Your task to perform on an android device: star an email in the gmail app Image 0: 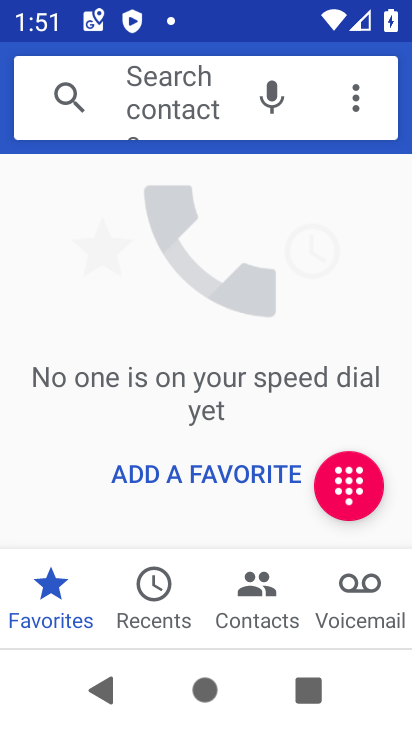
Step 0: press home button
Your task to perform on an android device: star an email in the gmail app Image 1: 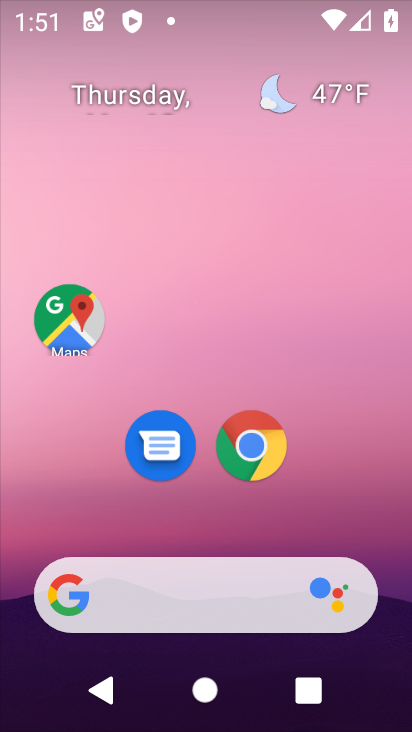
Step 1: drag from (211, 514) to (258, 177)
Your task to perform on an android device: star an email in the gmail app Image 2: 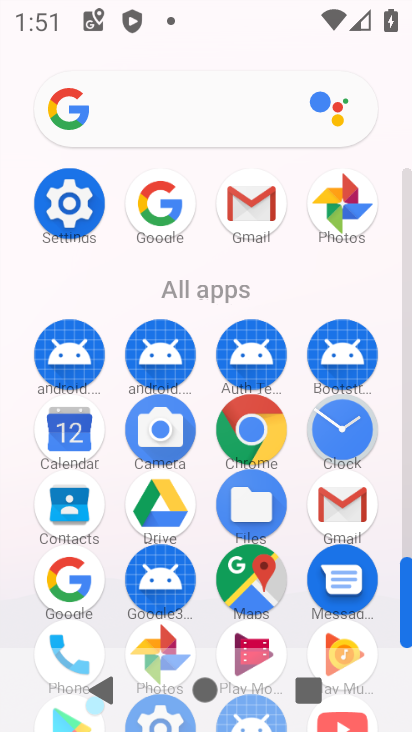
Step 2: click (255, 209)
Your task to perform on an android device: star an email in the gmail app Image 3: 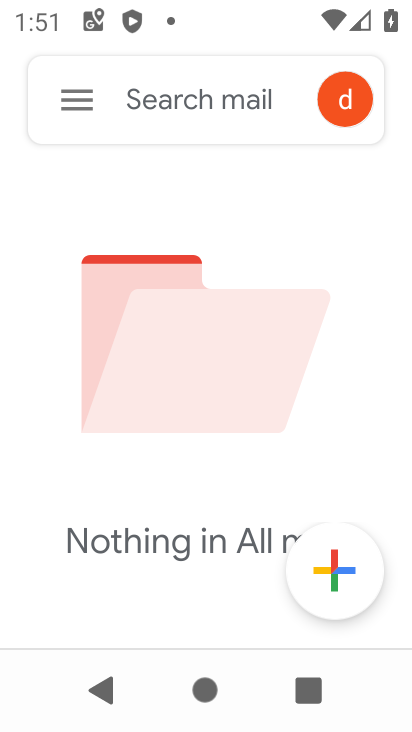
Step 3: click (64, 109)
Your task to perform on an android device: star an email in the gmail app Image 4: 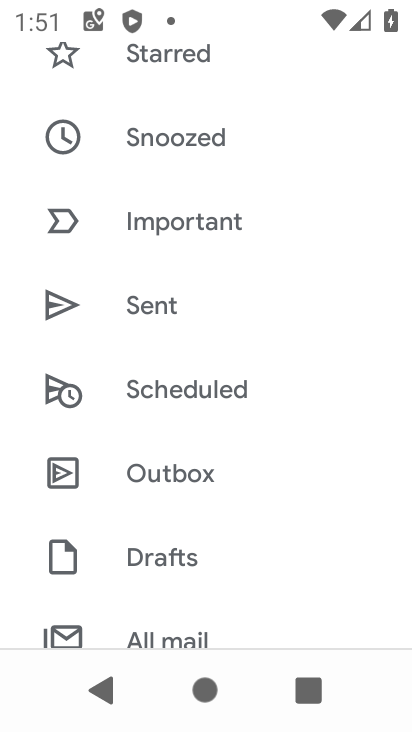
Step 4: drag from (190, 551) to (233, 262)
Your task to perform on an android device: star an email in the gmail app Image 5: 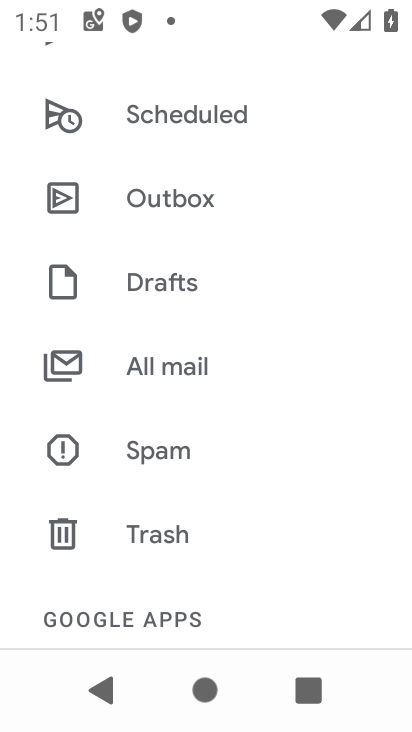
Step 5: click (195, 360)
Your task to perform on an android device: star an email in the gmail app Image 6: 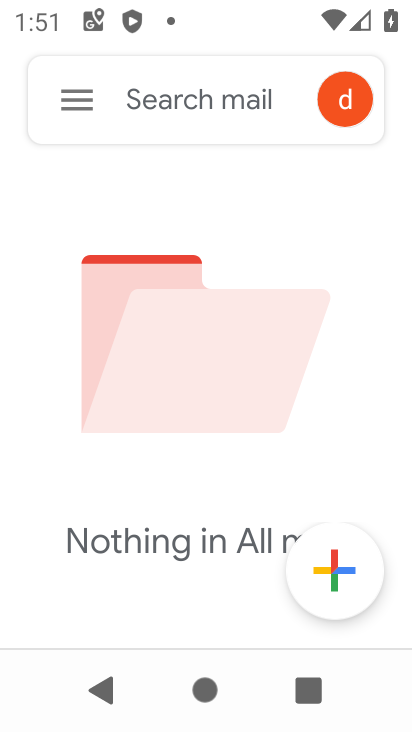
Step 6: task complete